Your task to perform on an android device: check out phone information Image 0: 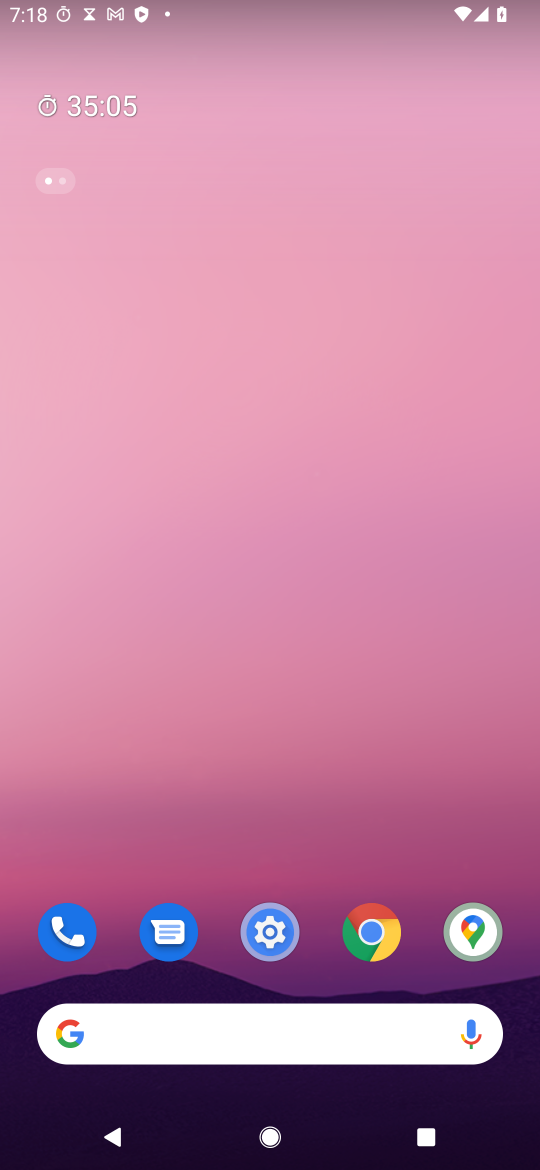
Step 0: drag from (268, 861) to (296, 21)
Your task to perform on an android device: check out phone information Image 1: 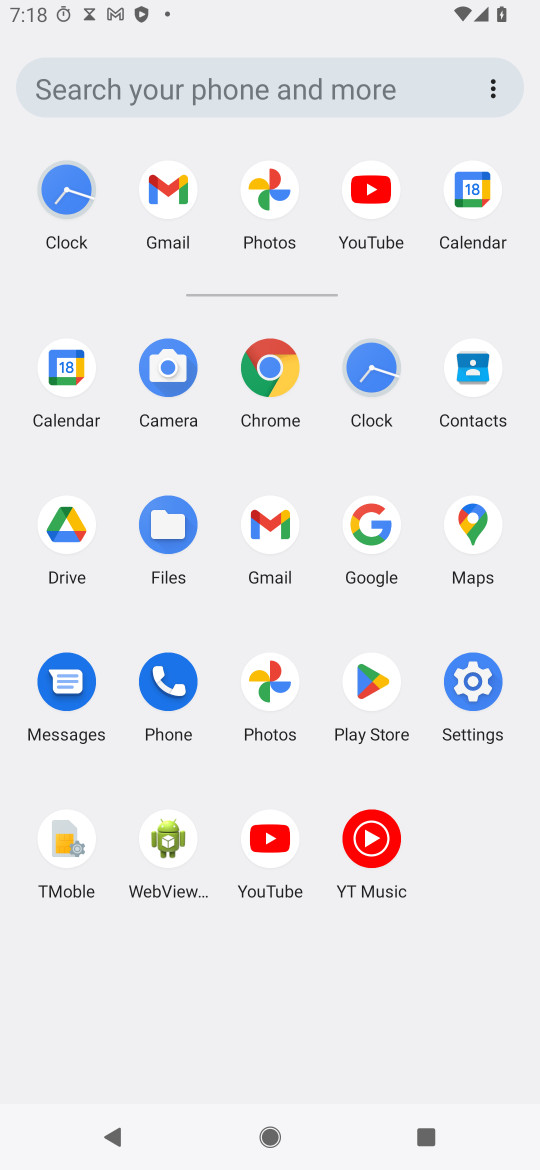
Step 1: click (495, 681)
Your task to perform on an android device: check out phone information Image 2: 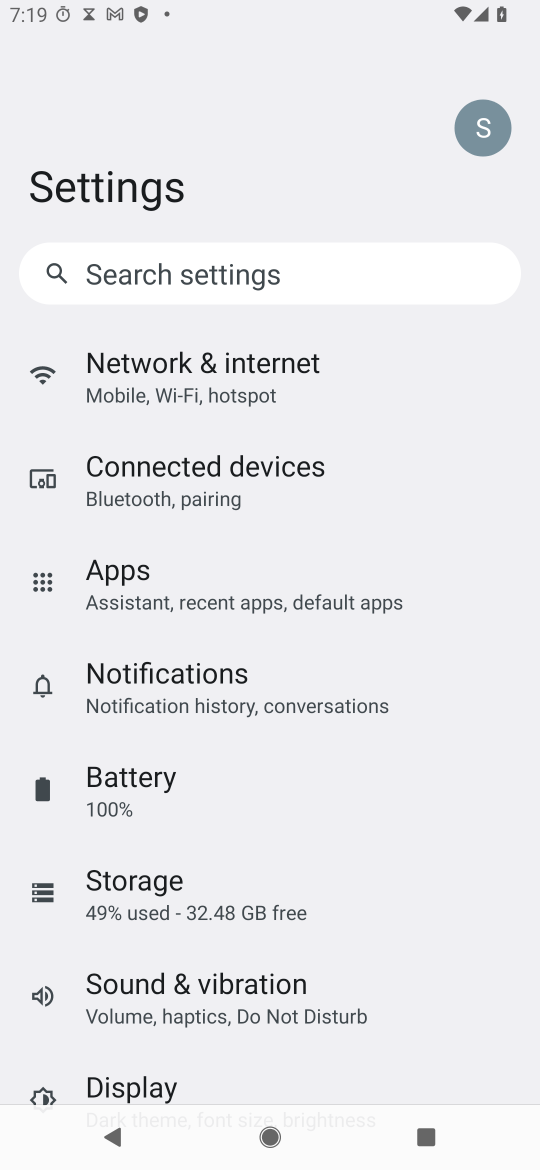
Step 2: drag from (266, 1034) to (264, 953)
Your task to perform on an android device: check out phone information Image 3: 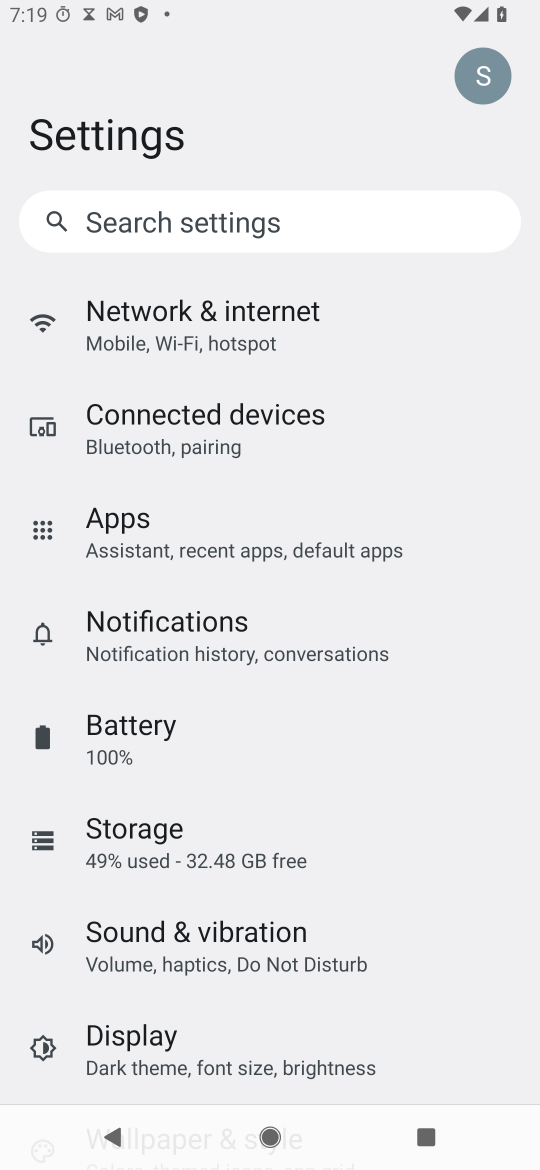
Step 3: press home button
Your task to perform on an android device: check out phone information Image 4: 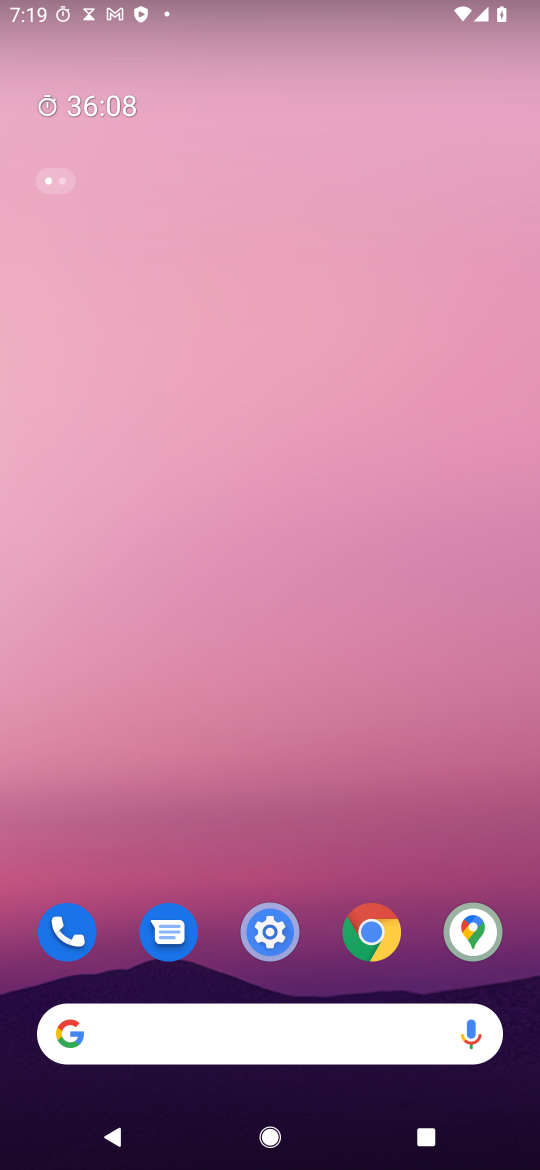
Step 4: drag from (307, 952) to (347, 259)
Your task to perform on an android device: check out phone information Image 5: 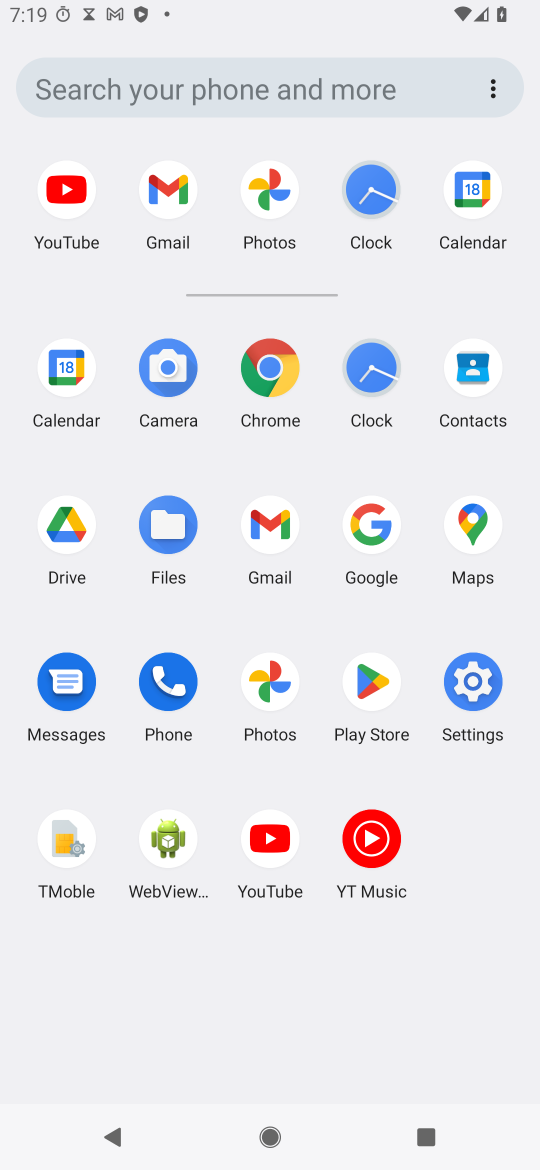
Step 5: click (165, 673)
Your task to perform on an android device: check out phone information Image 6: 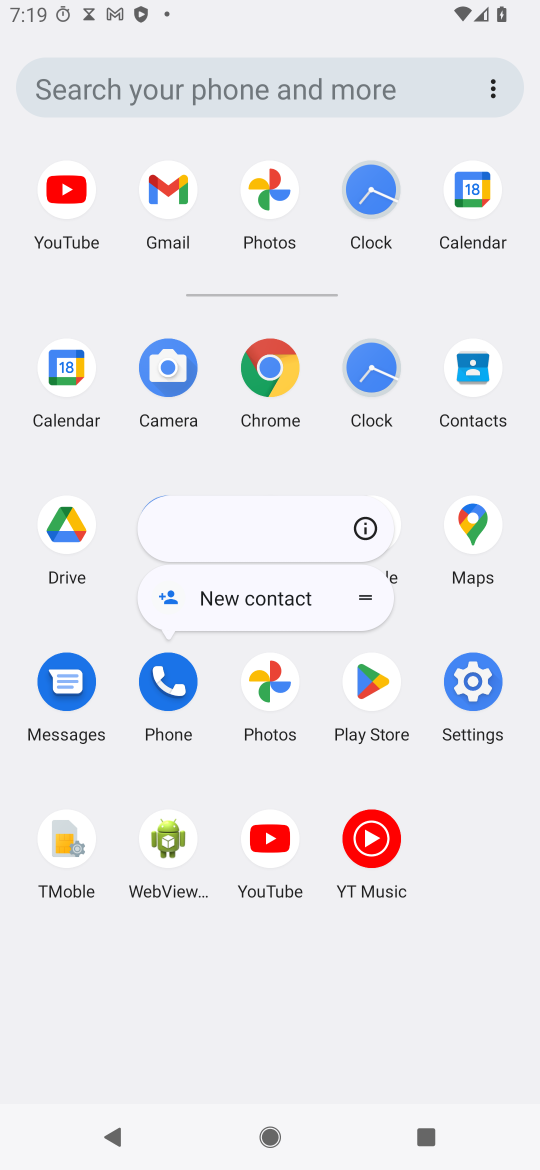
Step 6: click (358, 527)
Your task to perform on an android device: check out phone information Image 7: 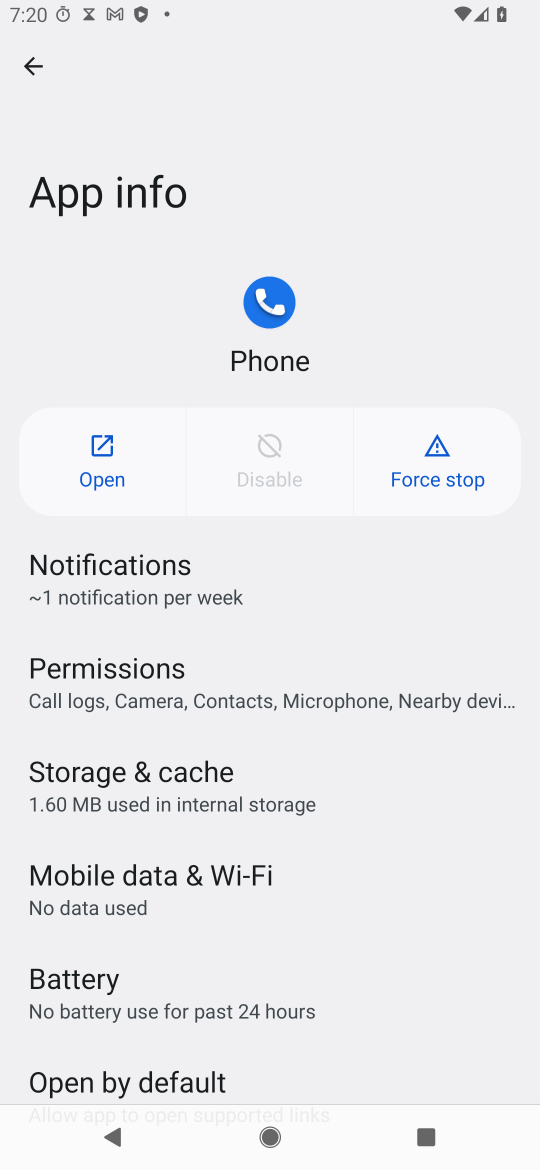
Step 7: task complete